Your task to perform on an android device: What's on my calendar tomorrow? Image 0: 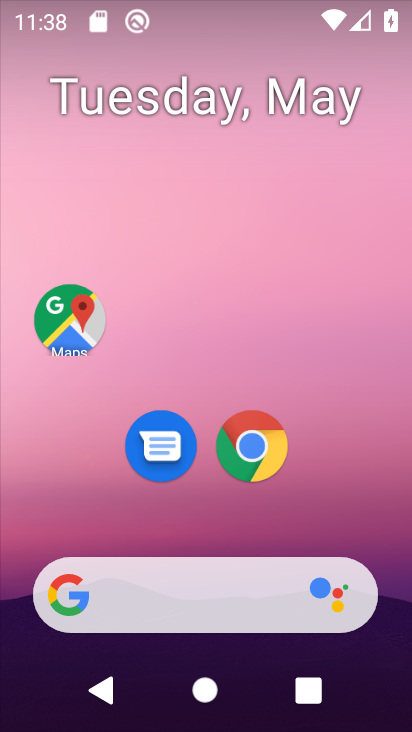
Step 0: press home button
Your task to perform on an android device: What's on my calendar tomorrow? Image 1: 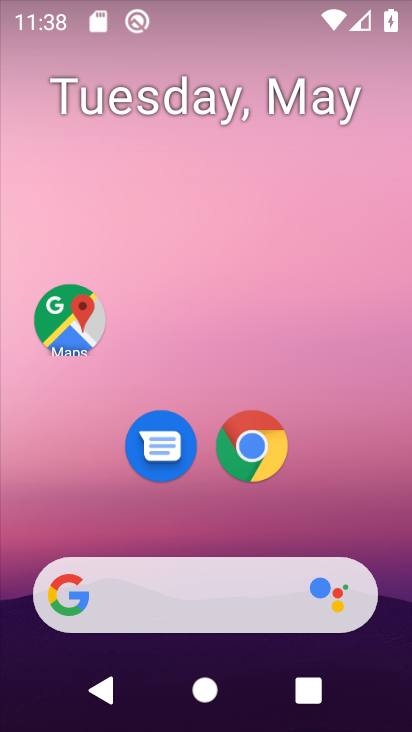
Step 1: drag from (392, 504) to (297, 25)
Your task to perform on an android device: What's on my calendar tomorrow? Image 2: 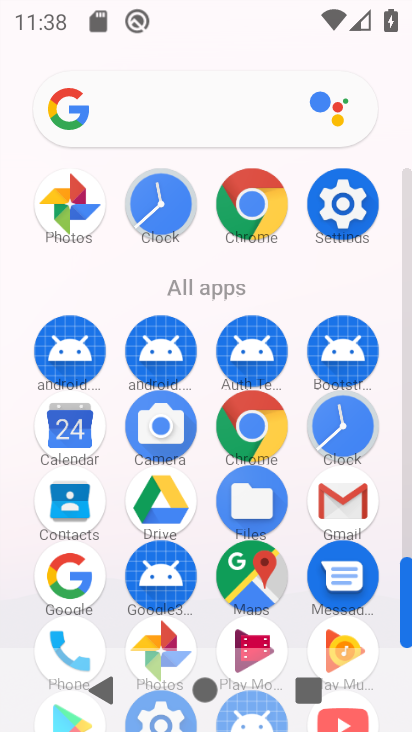
Step 2: click (65, 445)
Your task to perform on an android device: What's on my calendar tomorrow? Image 3: 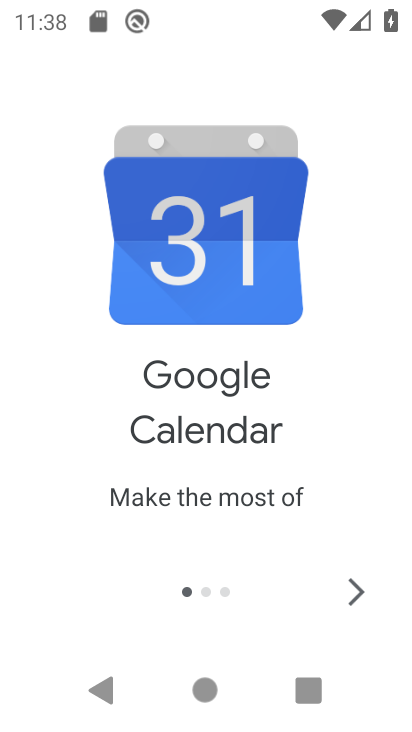
Step 3: click (381, 597)
Your task to perform on an android device: What's on my calendar tomorrow? Image 4: 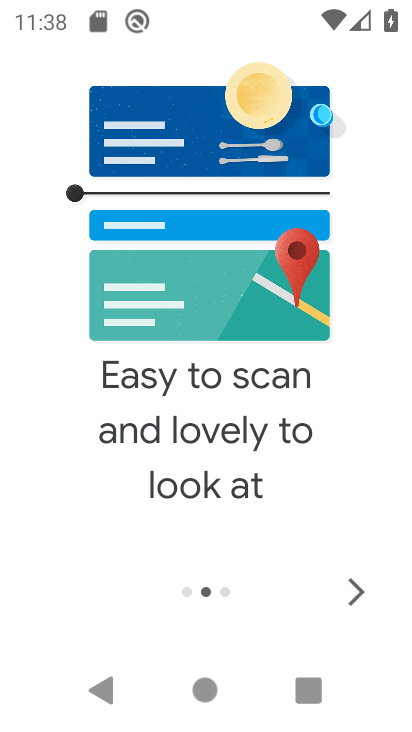
Step 4: click (381, 597)
Your task to perform on an android device: What's on my calendar tomorrow? Image 5: 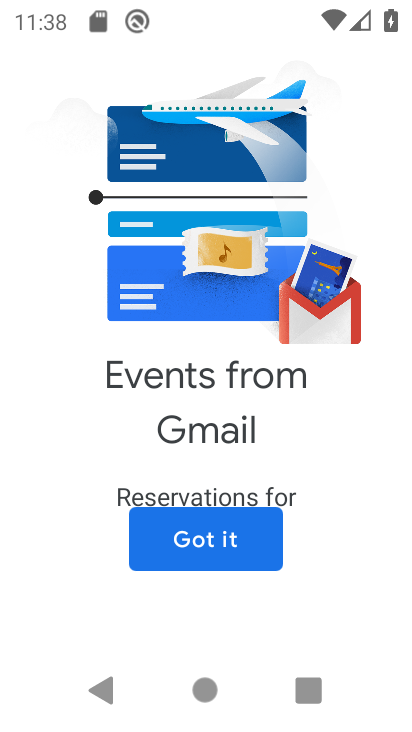
Step 5: drag from (381, 597) to (352, 574)
Your task to perform on an android device: What's on my calendar tomorrow? Image 6: 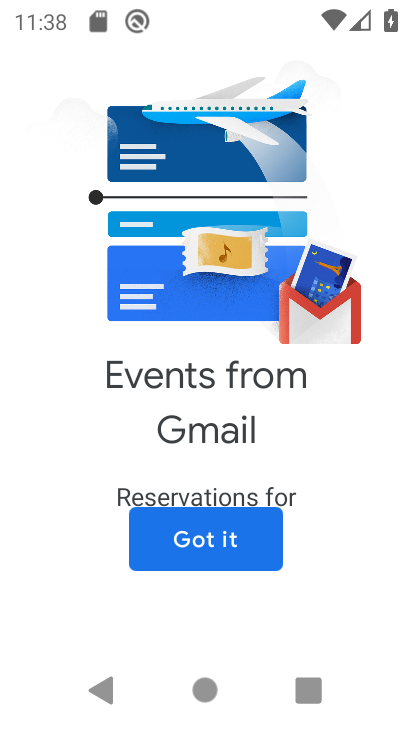
Step 6: click (143, 529)
Your task to perform on an android device: What's on my calendar tomorrow? Image 7: 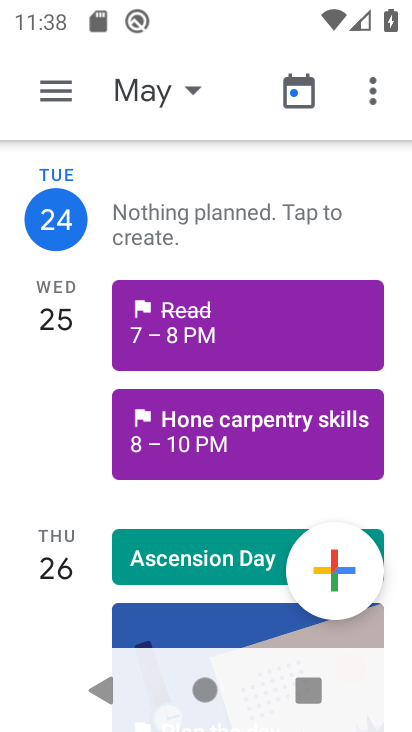
Step 7: click (191, 94)
Your task to perform on an android device: What's on my calendar tomorrow? Image 8: 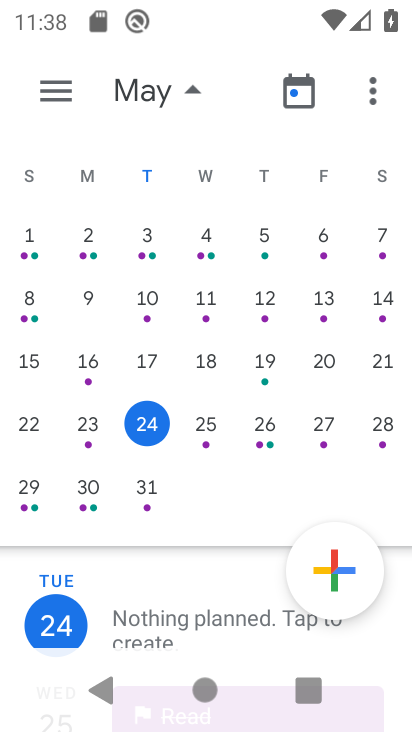
Step 8: click (264, 425)
Your task to perform on an android device: What's on my calendar tomorrow? Image 9: 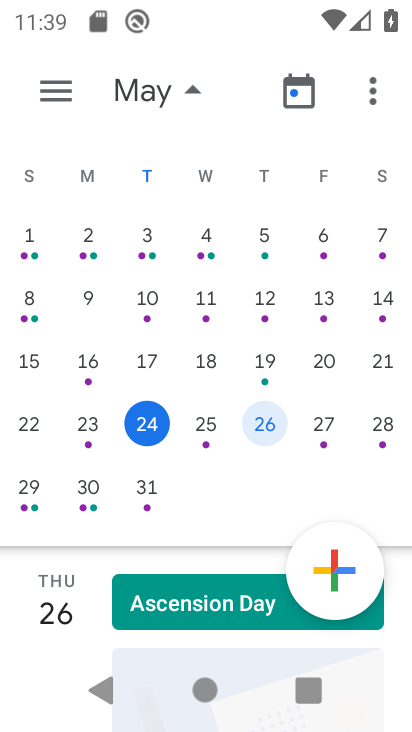
Step 9: click (188, 86)
Your task to perform on an android device: What's on my calendar tomorrow? Image 10: 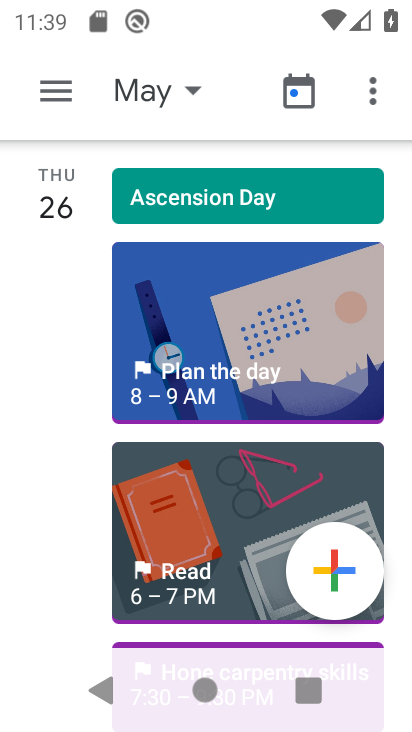
Step 10: task complete